Your task to perform on an android device: open wifi settings Image 0: 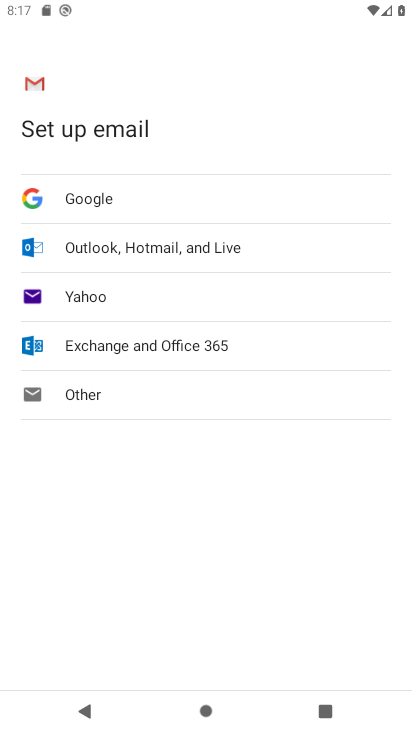
Step 0: press home button
Your task to perform on an android device: open wifi settings Image 1: 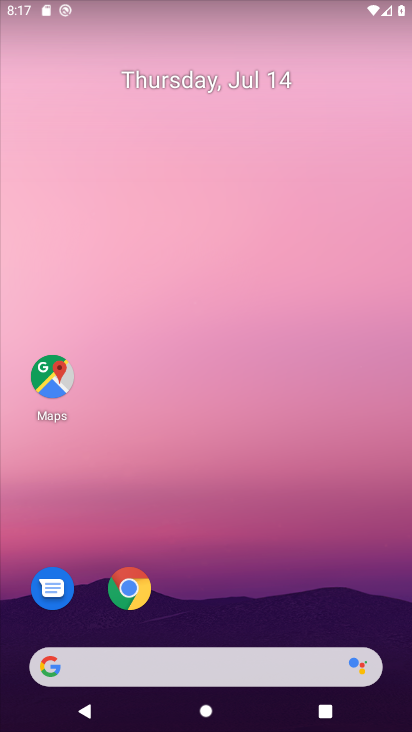
Step 1: drag from (361, 607) to (387, 92)
Your task to perform on an android device: open wifi settings Image 2: 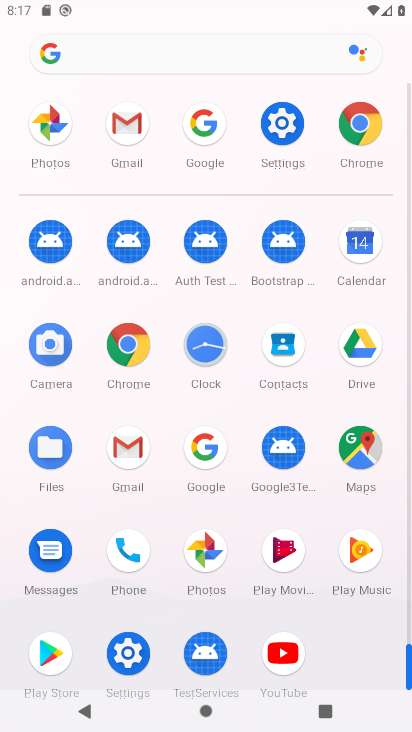
Step 2: click (289, 142)
Your task to perform on an android device: open wifi settings Image 3: 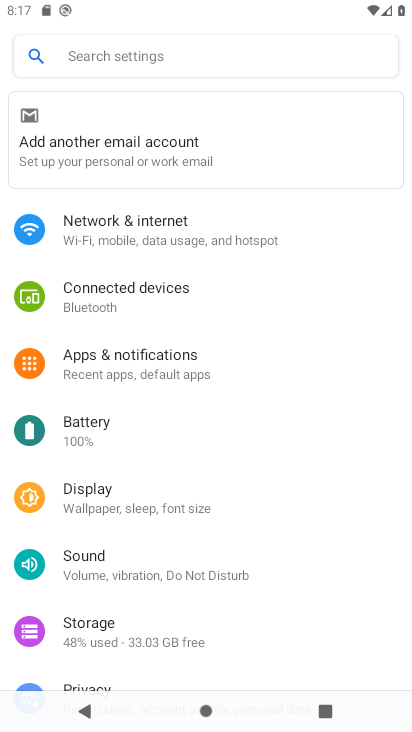
Step 3: drag from (339, 591) to (346, 428)
Your task to perform on an android device: open wifi settings Image 4: 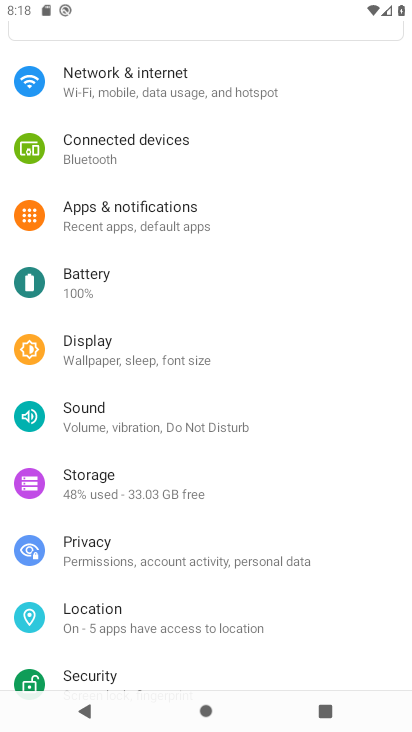
Step 4: drag from (356, 628) to (362, 451)
Your task to perform on an android device: open wifi settings Image 5: 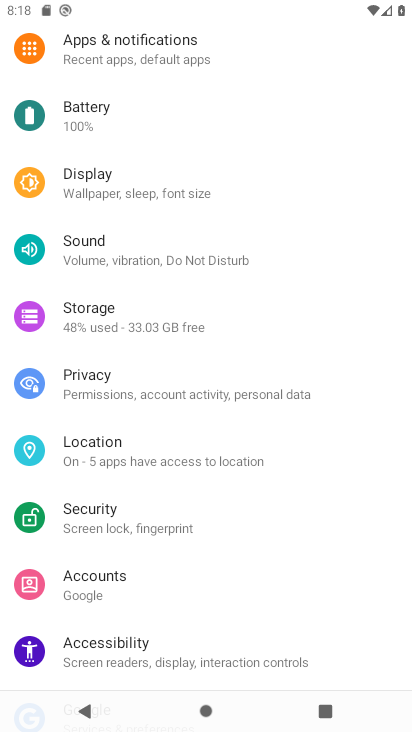
Step 5: drag from (316, 543) to (350, 427)
Your task to perform on an android device: open wifi settings Image 6: 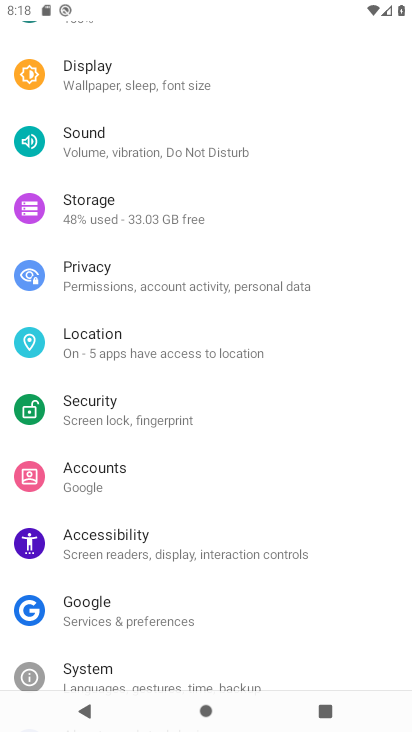
Step 6: drag from (368, 530) to (369, 410)
Your task to perform on an android device: open wifi settings Image 7: 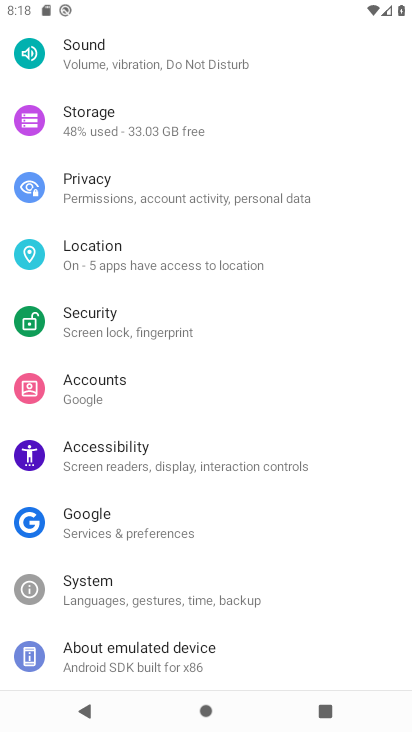
Step 7: drag from (359, 526) to (366, 334)
Your task to perform on an android device: open wifi settings Image 8: 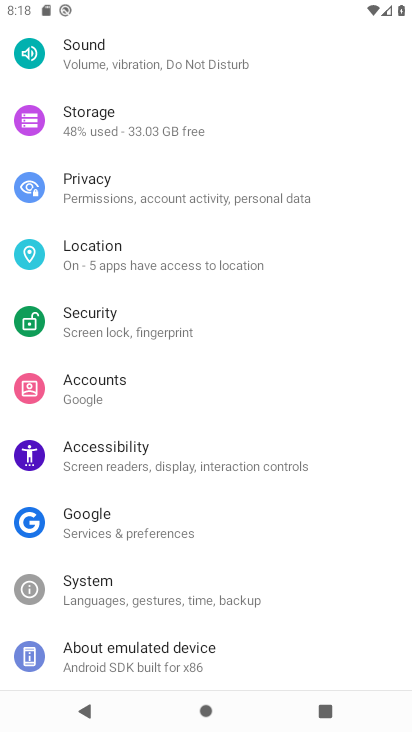
Step 8: drag from (367, 248) to (357, 347)
Your task to perform on an android device: open wifi settings Image 9: 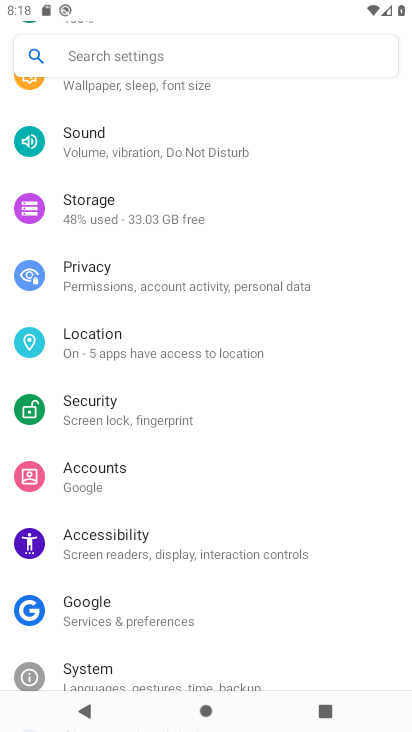
Step 9: drag from (342, 222) to (341, 320)
Your task to perform on an android device: open wifi settings Image 10: 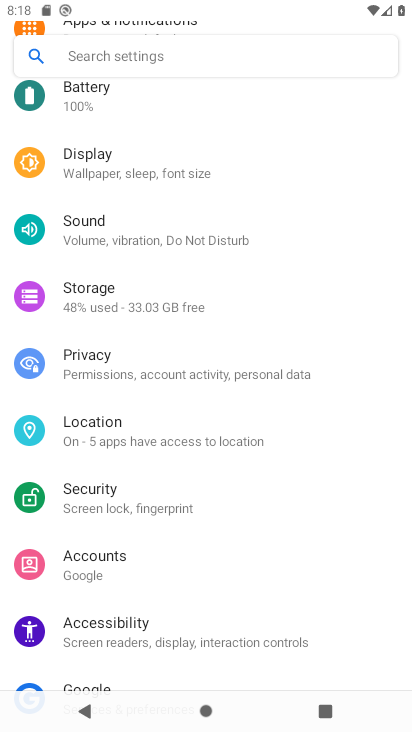
Step 10: drag from (341, 192) to (339, 278)
Your task to perform on an android device: open wifi settings Image 11: 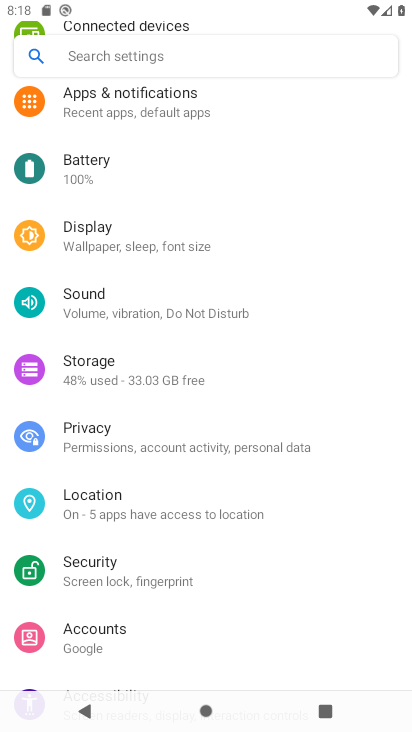
Step 11: drag from (319, 177) to (317, 276)
Your task to perform on an android device: open wifi settings Image 12: 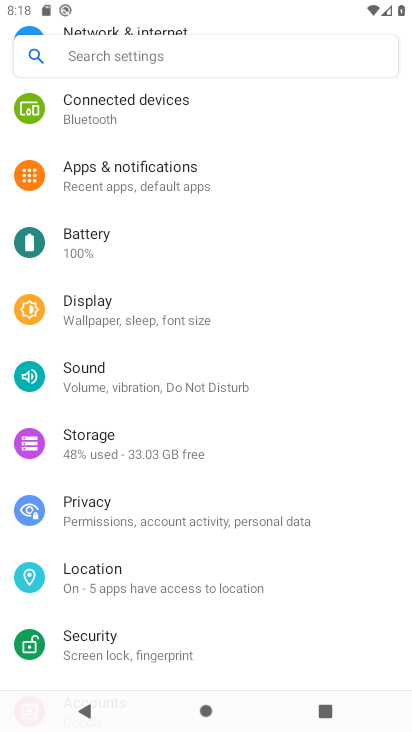
Step 12: drag from (317, 189) to (315, 298)
Your task to perform on an android device: open wifi settings Image 13: 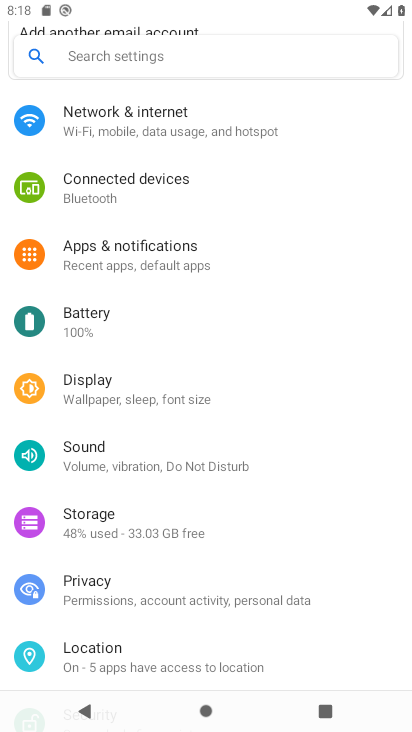
Step 13: drag from (316, 177) to (309, 353)
Your task to perform on an android device: open wifi settings Image 14: 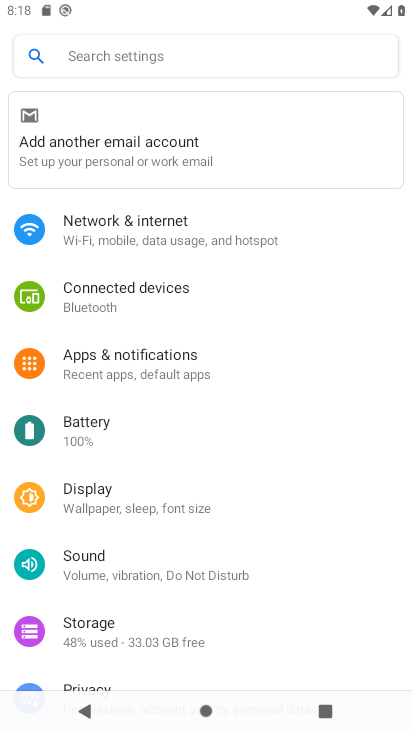
Step 14: click (265, 233)
Your task to perform on an android device: open wifi settings Image 15: 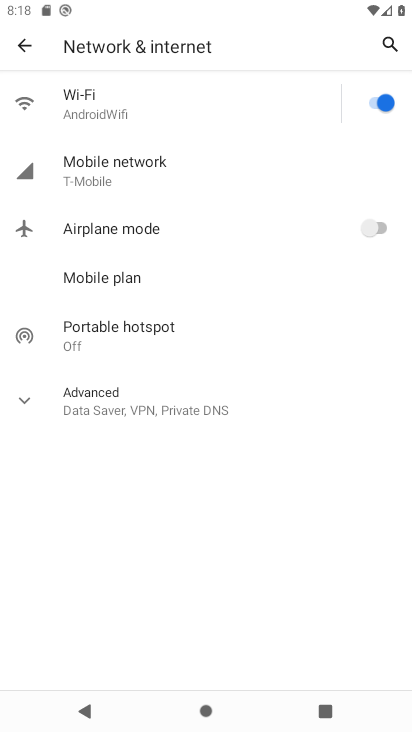
Step 15: click (165, 102)
Your task to perform on an android device: open wifi settings Image 16: 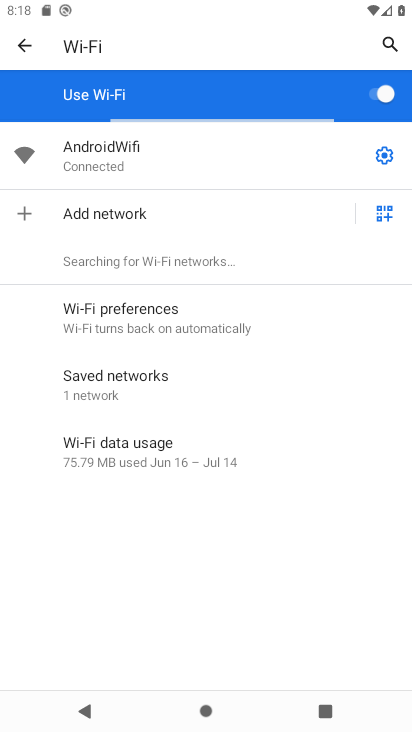
Step 16: task complete